Your task to perform on an android device: allow cookies in the chrome app Image 0: 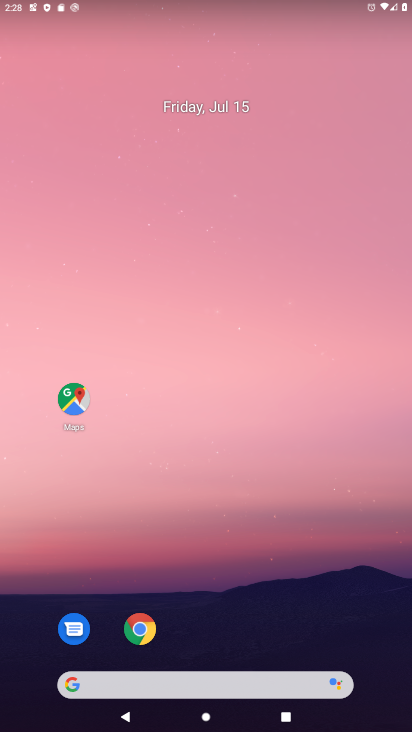
Step 0: drag from (323, 584) to (303, 126)
Your task to perform on an android device: allow cookies in the chrome app Image 1: 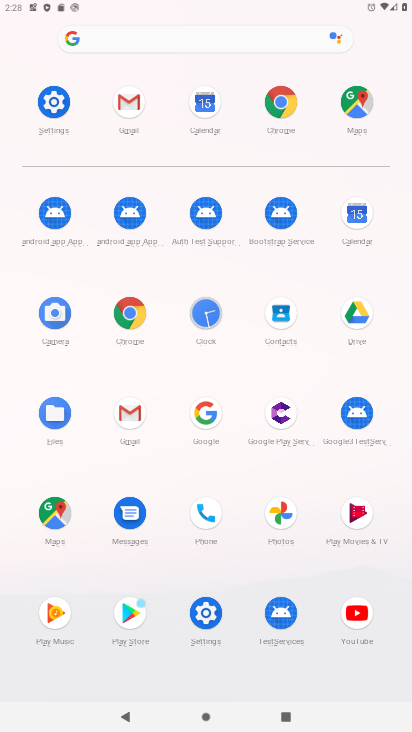
Step 1: click (130, 308)
Your task to perform on an android device: allow cookies in the chrome app Image 2: 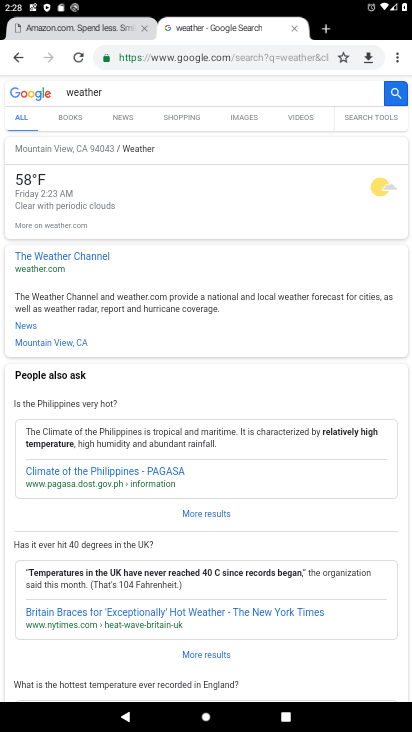
Step 2: drag from (403, 52) to (297, 397)
Your task to perform on an android device: allow cookies in the chrome app Image 3: 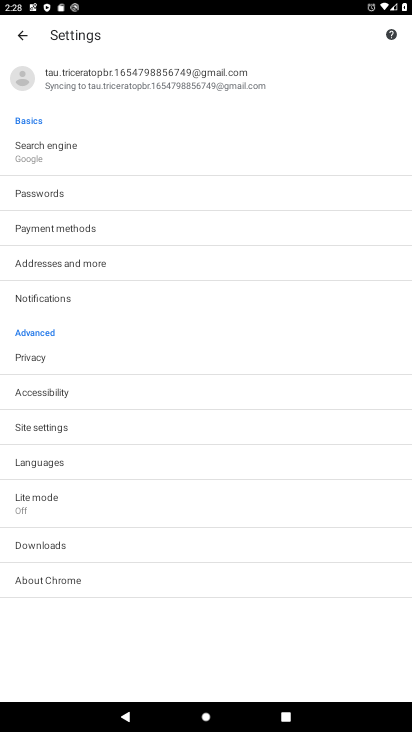
Step 3: click (39, 425)
Your task to perform on an android device: allow cookies in the chrome app Image 4: 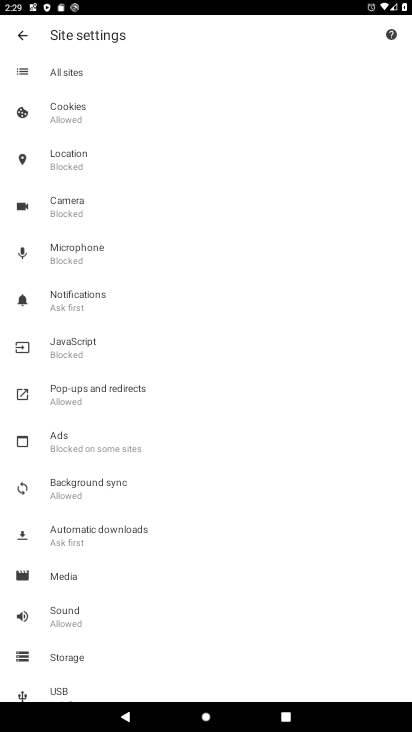
Step 4: click (64, 109)
Your task to perform on an android device: allow cookies in the chrome app Image 5: 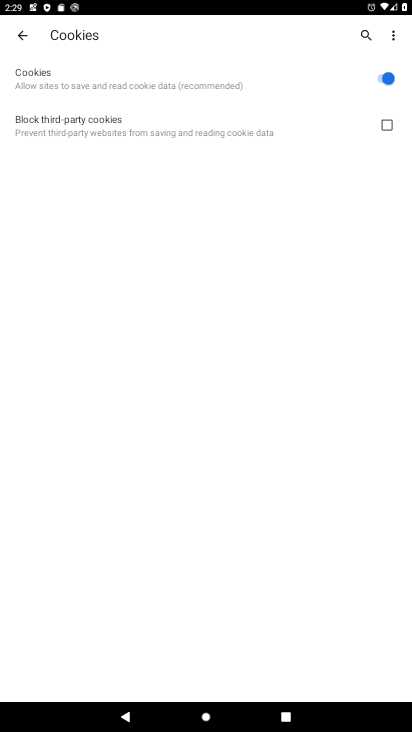
Step 5: task complete